Your task to perform on an android device: Go to eBay Image 0: 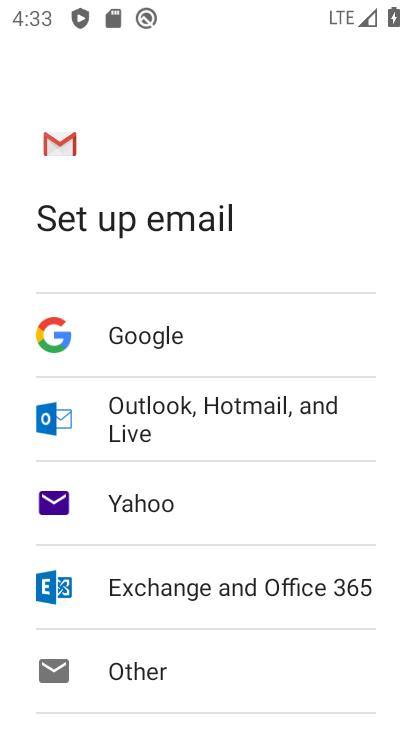
Step 0: press home button
Your task to perform on an android device: Go to eBay Image 1: 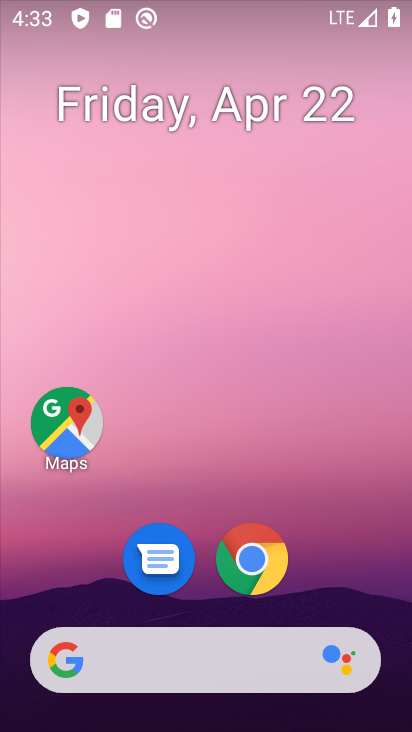
Step 1: click (247, 549)
Your task to perform on an android device: Go to eBay Image 2: 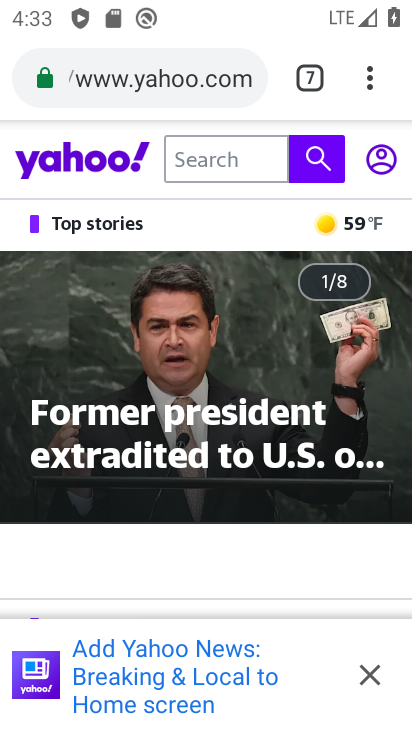
Step 2: click (304, 75)
Your task to perform on an android device: Go to eBay Image 3: 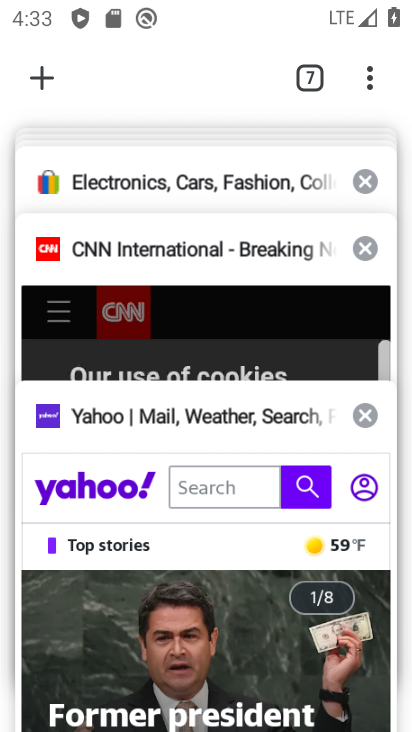
Step 3: click (37, 79)
Your task to perform on an android device: Go to eBay Image 4: 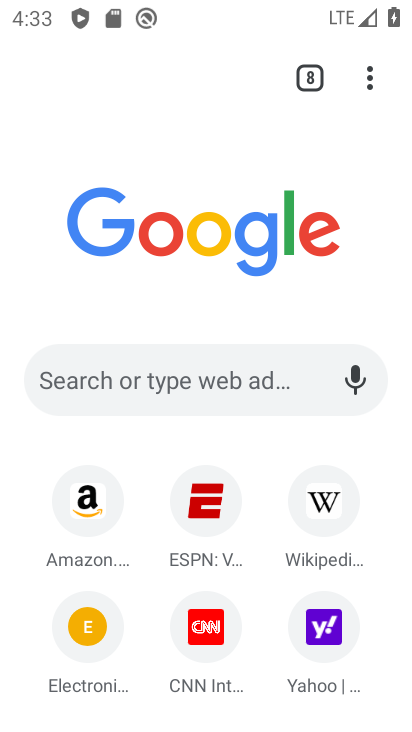
Step 4: click (216, 378)
Your task to perform on an android device: Go to eBay Image 5: 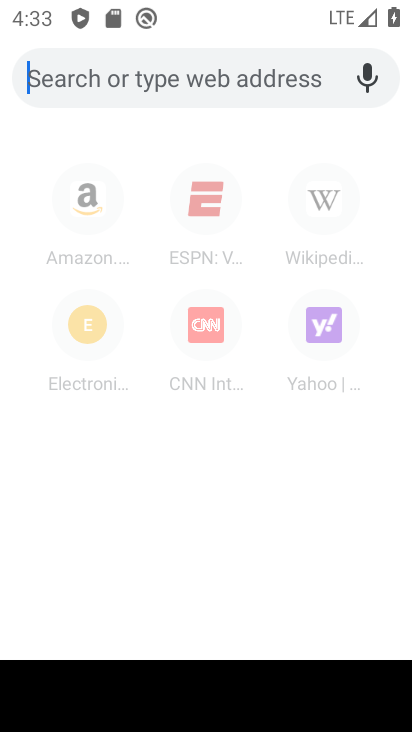
Step 5: type "eBay"
Your task to perform on an android device: Go to eBay Image 6: 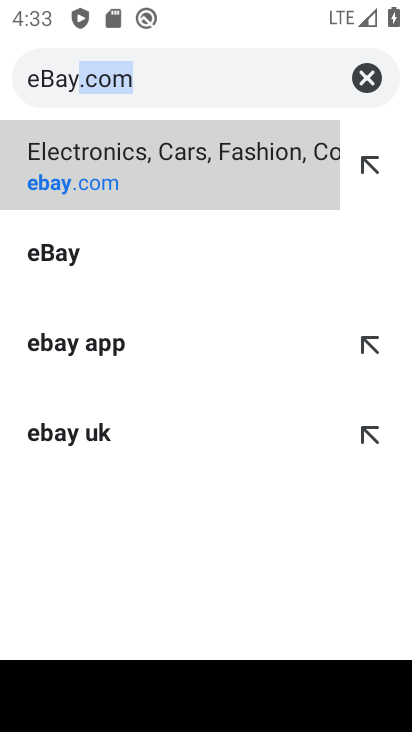
Step 6: click (217, 165)
Your task to perform on an android device: Go to eBay Image 7: 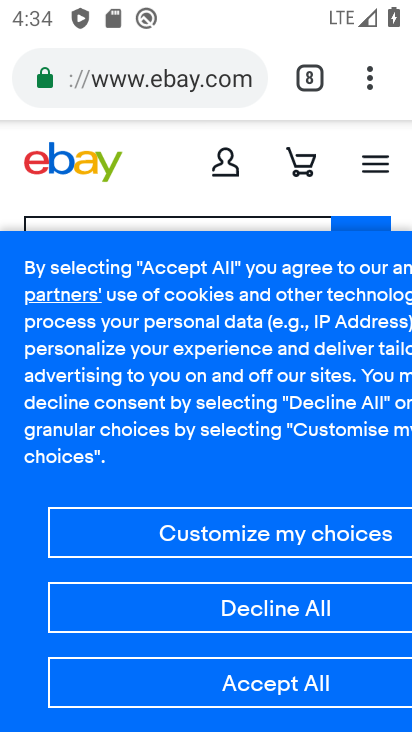
Step 7: task complete